Your task to perform on an android device: Show me popular games on the Play Store Image 0: 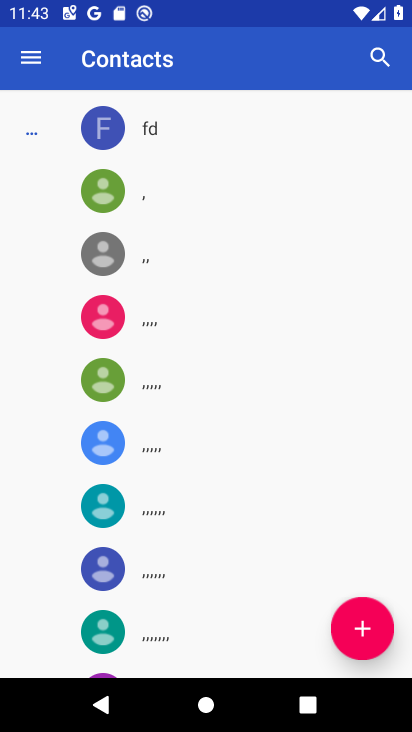
Step 0: press home button
Your task to perform on an android device: Show me popular games on the Play Store Image 1: 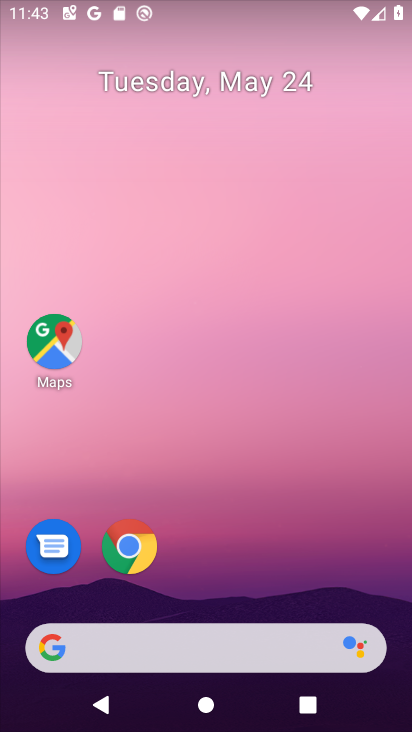
Step 1: drag from (184, 587) to (252, 11)
Your task to perform on an android device: Show me popular games on the Play Store Image 2: 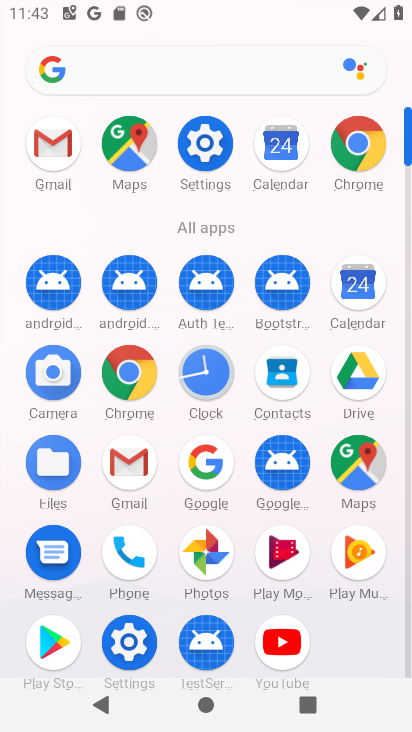
Step 2: click (62, 645)
Your task to perform on an android device: Show me popular games on the Play Store Image 3: 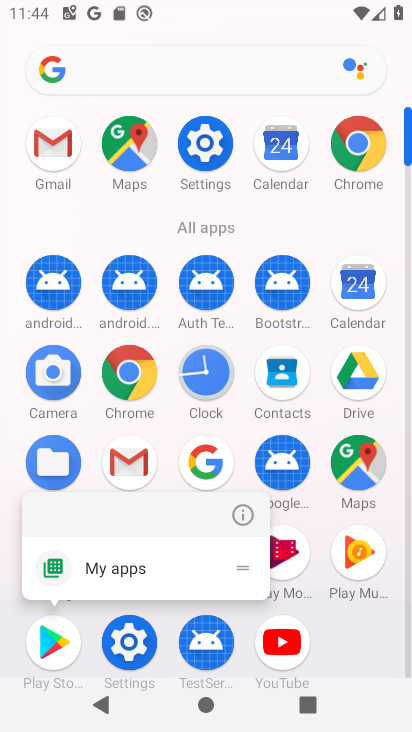
Step 3: click (66, 644)
Your task to perform on an android device: Show me popular games on the Play Store Image 4: 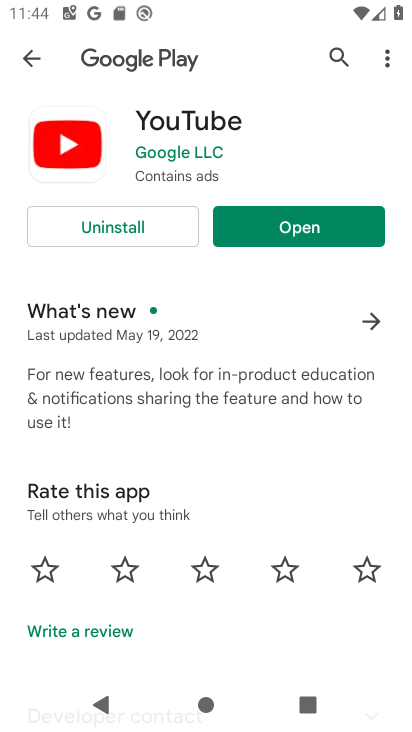
Step 4: click (36, 56)
Your task to perform on an android device: Show me popular games on the Play Store Image 5: 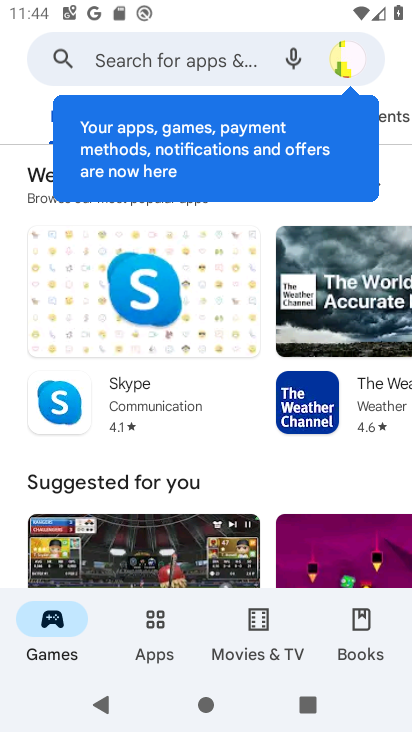
Step 5: click (25, 118)
Your task to perform on an android device: Show me popular games on the Play Store Image 6: 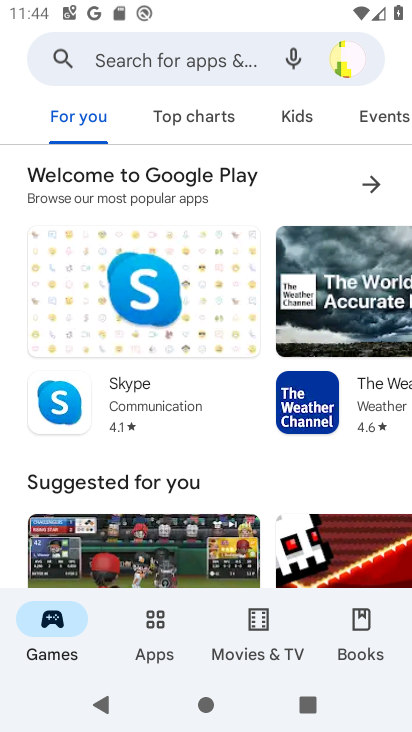
Step 6: click (222, 121)
Your task to perform on an android device: Show me popular games on the Play Store Image 7: 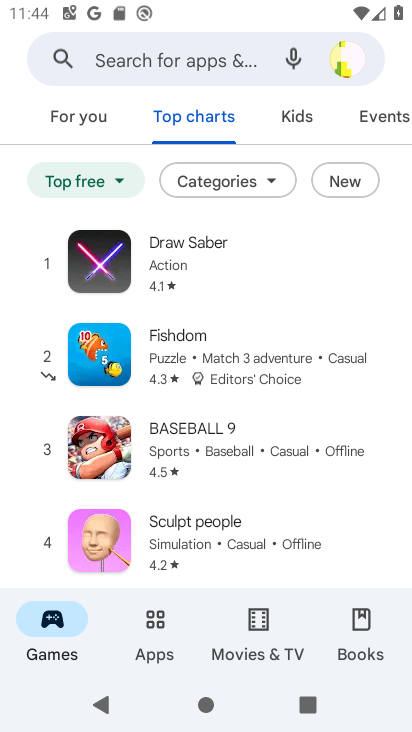
Step 7: task complete